Your task to perform on an android device: open a bookmark in the chrome app Image 0: 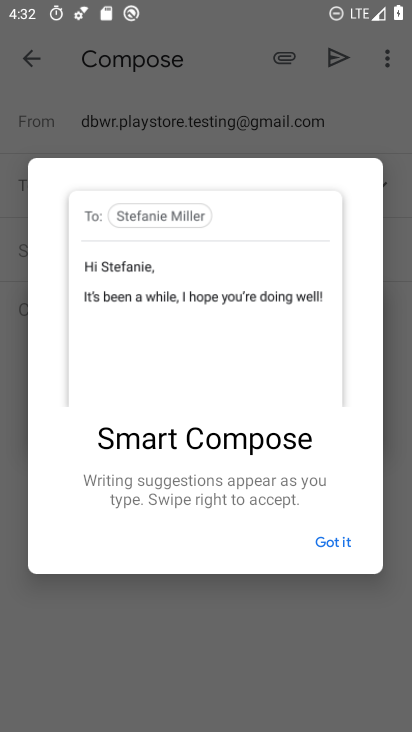
Step 0: press home button
Your task to perform on an android device: open a bookmark in the chrome app Image 1: 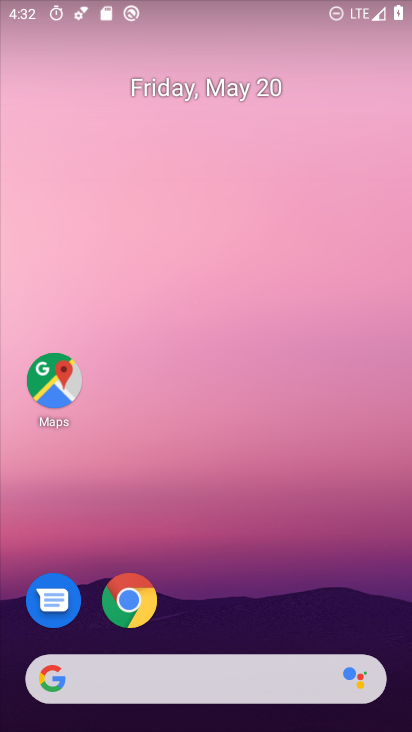
Step 1: click (127, 607)
Your task to perform on an android device: open a bookmark in the chrome app Image 2: 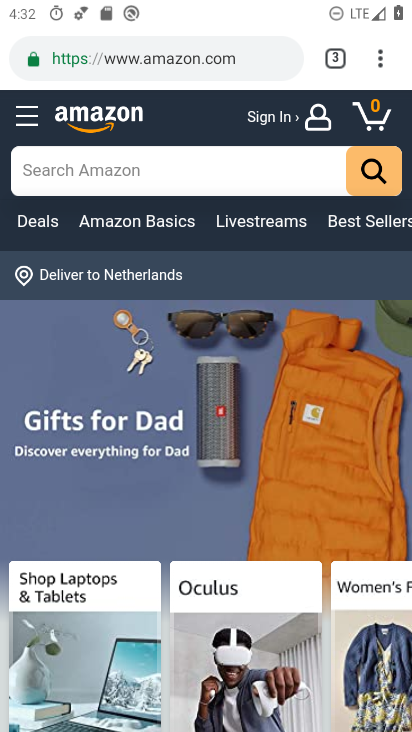
Step 2: task complete